Your task to perform on an android device: open the mobile data screen to see how much data has been used Image 0: 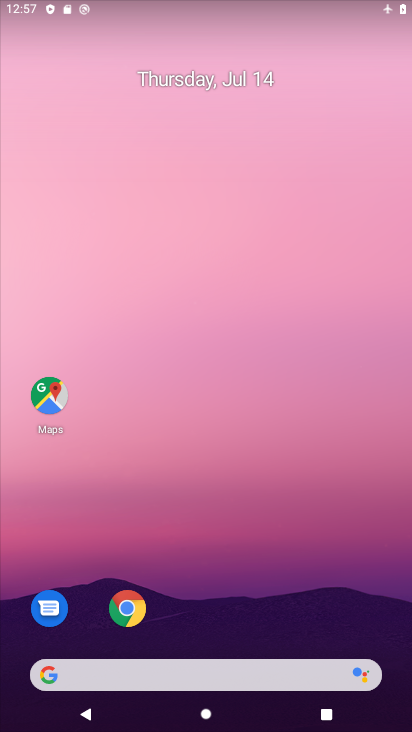
Step 0: drag from (163, 641) to (158, 256)
Your task to perform on an android device: open the mobile data screen to see how much data has been used Image 1: 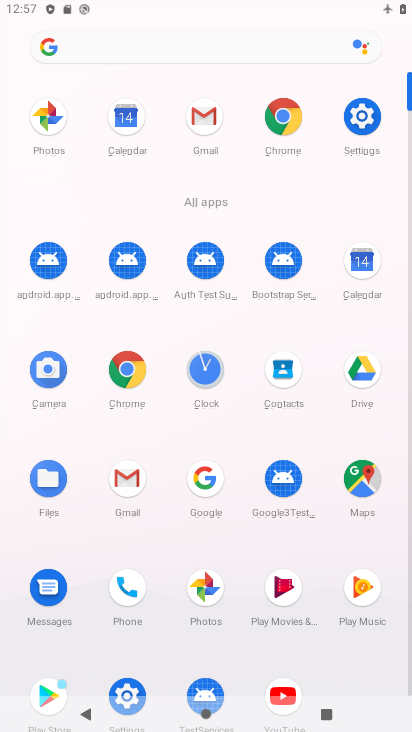
Step 1: click (358, 119)
Your task to perform on an android device: open the mobile data screen to see how much data has been used Image 2: 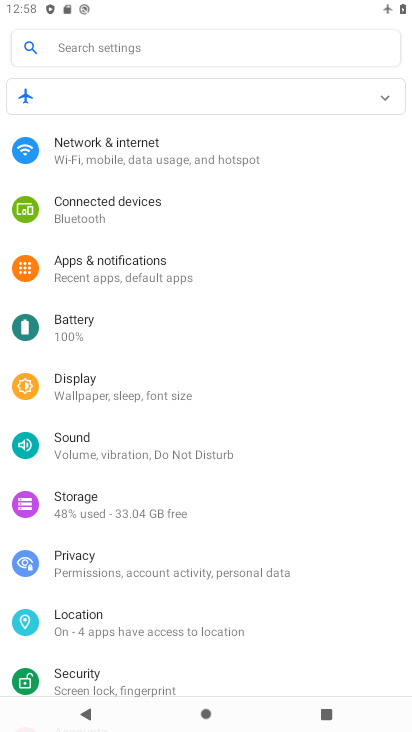
Step 2: click (143, 161)
Your task to perform on an android device: open the mobile data screen to see how much data has been used Image 3: 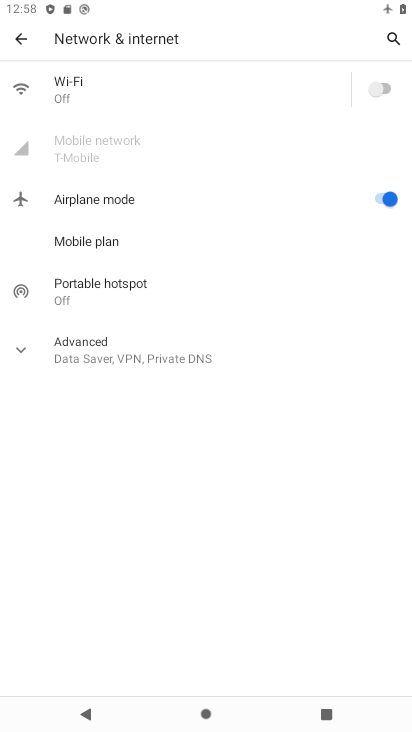
Step 3: click (383, 196)
Your task to perform on an android device: open the mobile data screen to see how much data has been used Image 4: 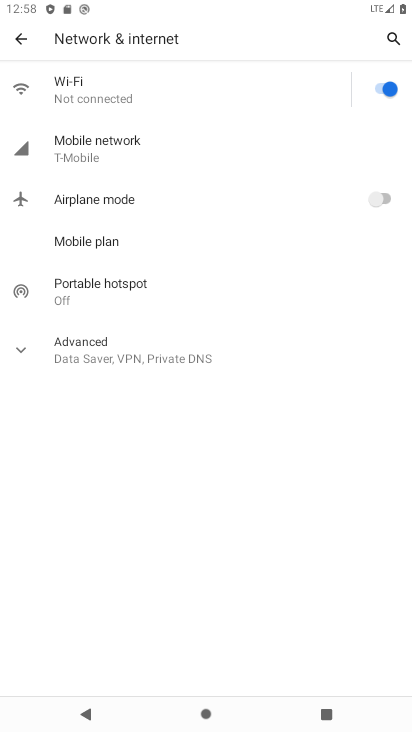
Step 4: click (116, 154)
Your task to perform on an android device: open the mobile data screen to see how much data has been used Image 5: 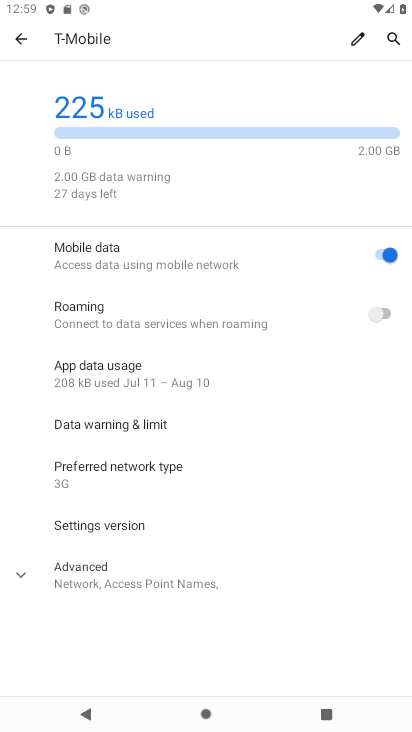
Step 5: task complete